Your task to perform on an android device: Open calendar and show me the second week of next month Image 0: 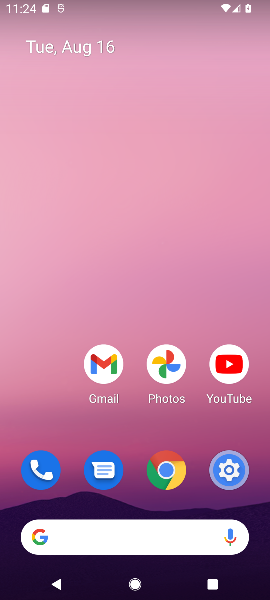
Step 0: drag from (42, 388) to (82, 13)
Your task to perform on an android device: Open calendar and show me the second week of next month Image 1: 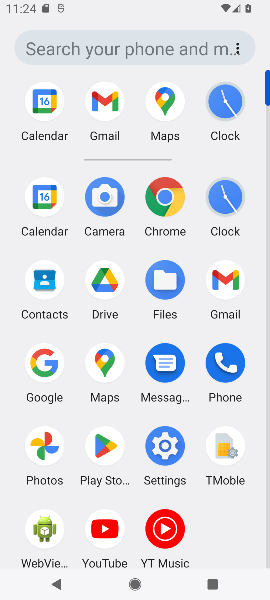
Step 1: click (46, 96)
Your task to perform on an android device: Open calendar and show me the second week of next month Image 2: 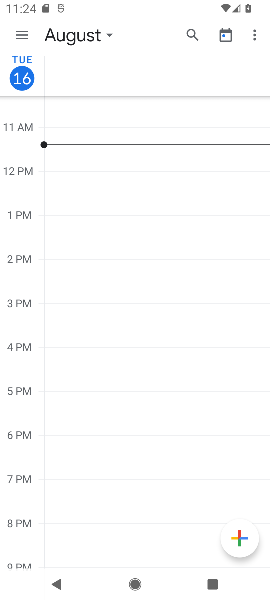
Step 2: click (21, 35)
Your task to perform on an android device: Open calendar and show me the second week of next month Image 3: 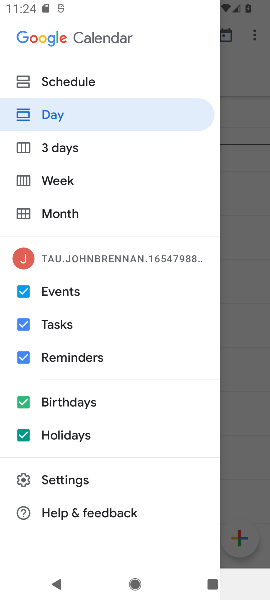
Step 3: click (21, 181)
Your task to perform on an android device: Open calendar and show me the second week of next month Image 4: 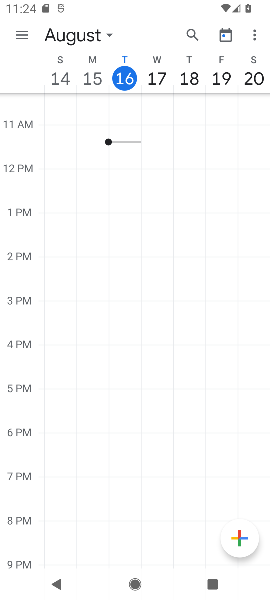
Step 4: task complete